Your task to perform on an android device: Show the shopping cart on bestbuy.com. Search for "energizer triple a" on bestbuy.com, select the first entry, add it to the cart, then select checkout. Image 0: 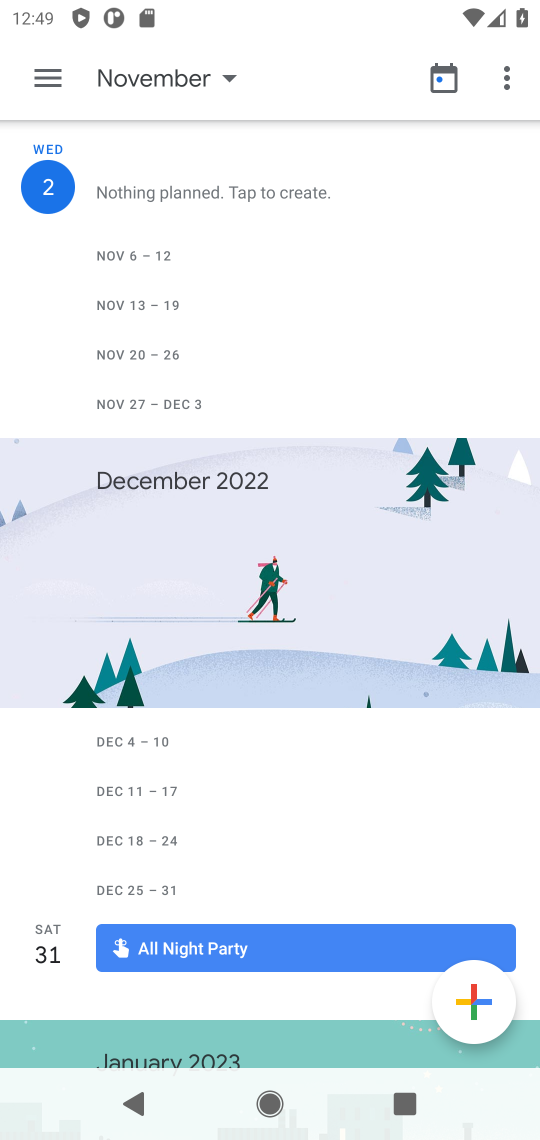
Step 0: press home button
Your task to perform on an android device: Show the shopping cart on bestbuy.com. Search for "energizer triple a" on bestbuy.com, select the first entry, add it to the cart, then select checkout. Image 1: 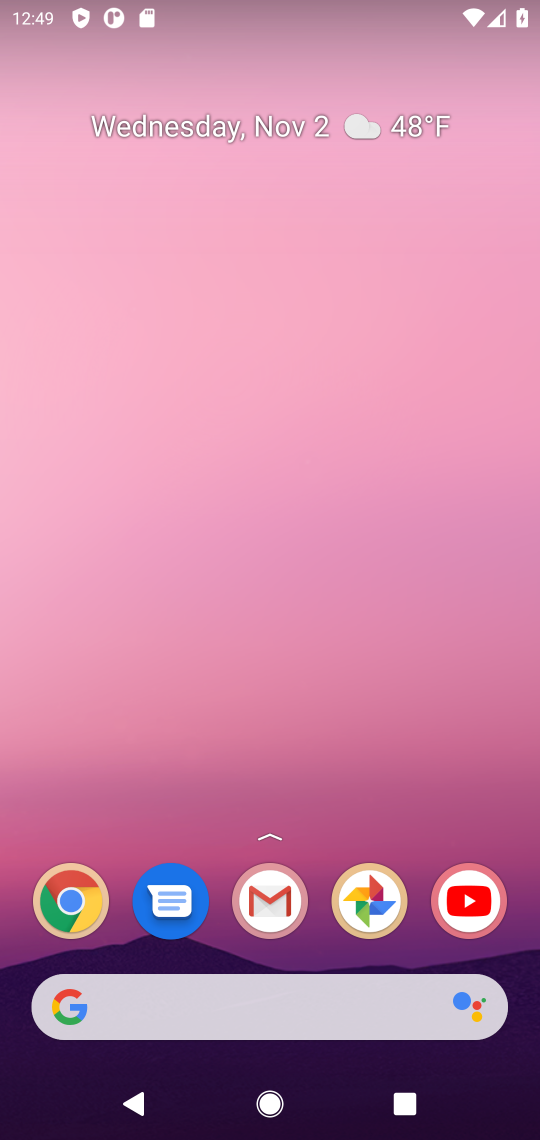
Step 1: drag from (317, 956) to (273, 180)
Your task to perform on an android device: Show the shopping cart on bestbuy.com. Search for "energizer triple a" on bestbuy.com, select the first entry, add it to the cart, then select checkout. Image 2: 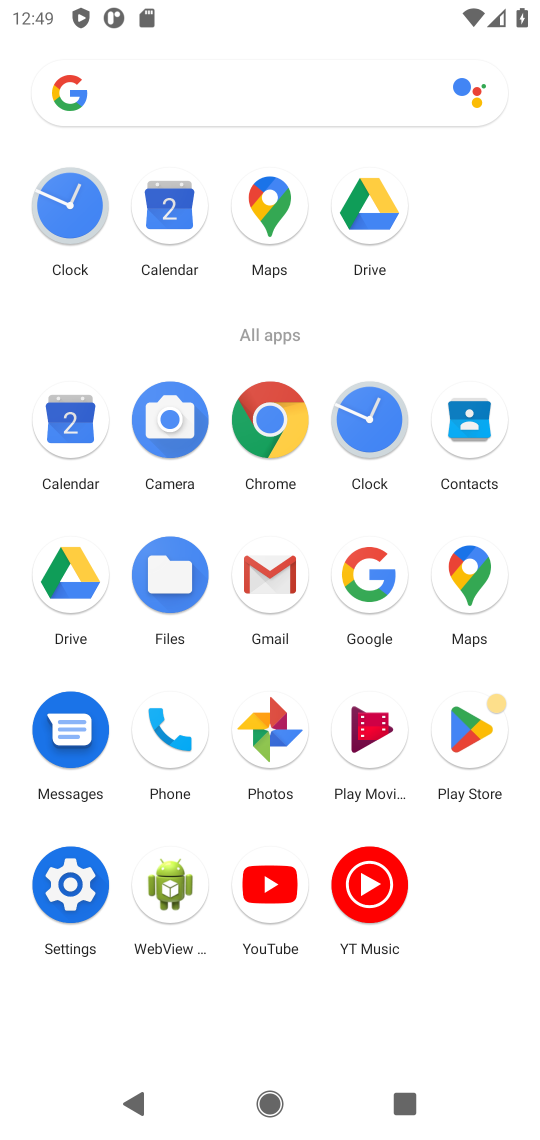
Step 2: click (269, 413)
Your task to perform on an android device: Show the shopping cart on bestbuy.com. Search for "energizer triple a" on bestbuy.com, select the first entry, add it to the cart, then select checkout. Image 3: 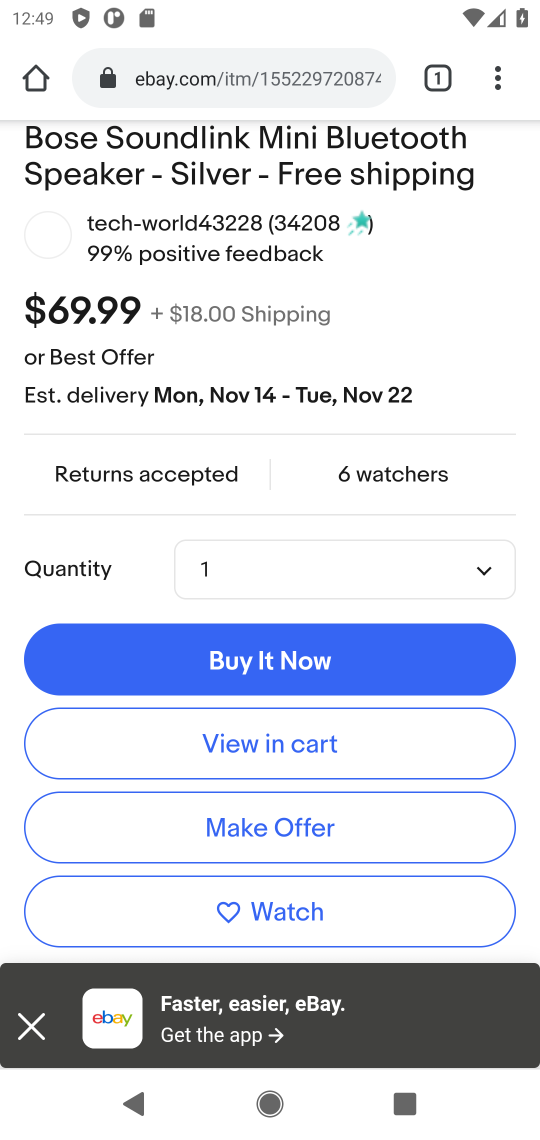
Step 3: click (293, 72)
Your task to perform on an android device: Show the shopping cart on bestbuy.com. Search for "energizer triple a" on bestbuy.com, select the first entry, add it to the cart, then select checkout. Image 4: 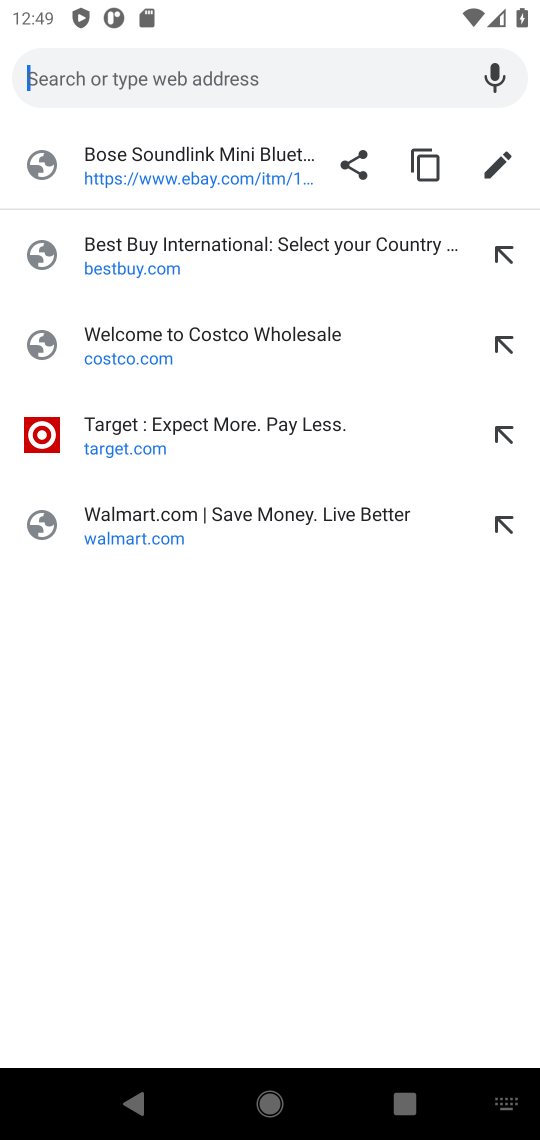
Step 4: type "bestbuy.com"
Your task to perform on an android device: Show the shopping cart on bestbuy.com. Search for "energizer triple a" on bestbuy.com, select the first entry, add it to the cart, then select checkout. Image 5: 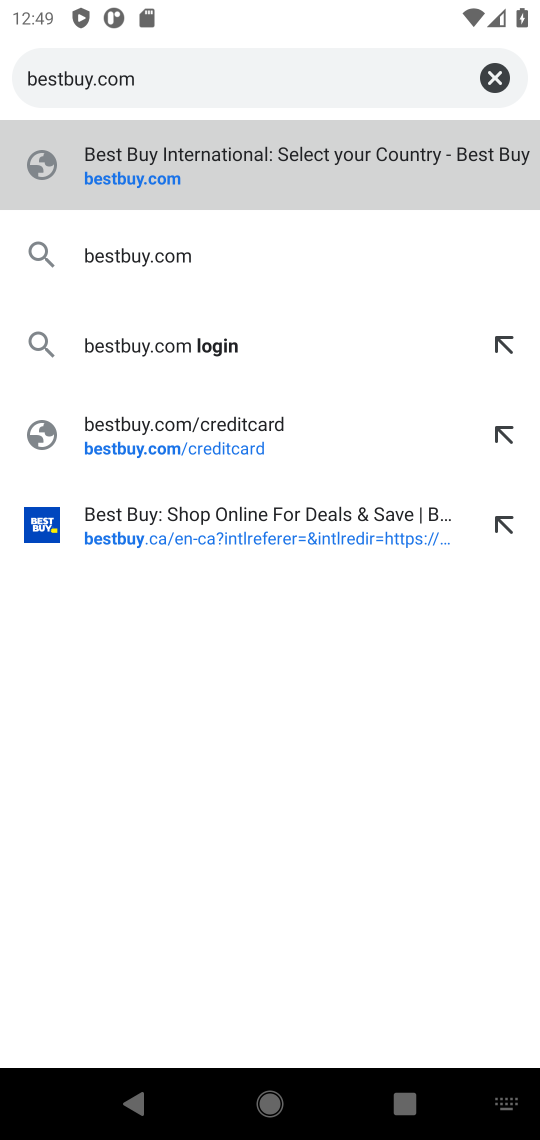
Step 5: press enter
Your task to perform on an android device: Show the shopping cart on bestbuy.com. Search for "energizer triple a" on bestbuy.com, select the first entry, add it to the cart, then select checkout. Image 6: 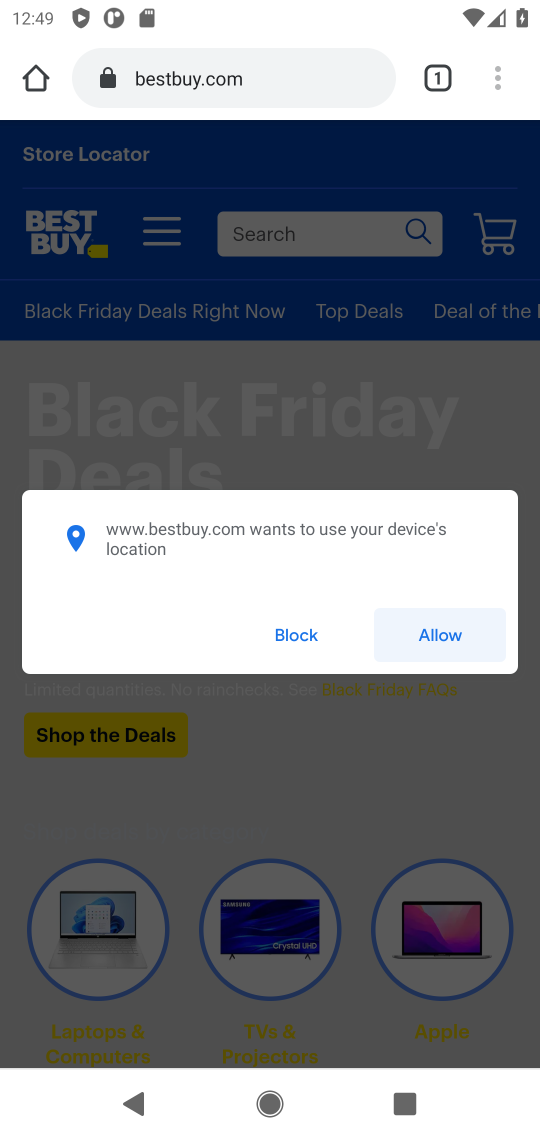
Step 6: click (314, 628)
Your task to perform on an android device: Show the shopping cart on bestbuy.com. Search for "energizer triple a" on bestbuy.com, select the first entry, add it to the cart, then select checkout. Image 7: 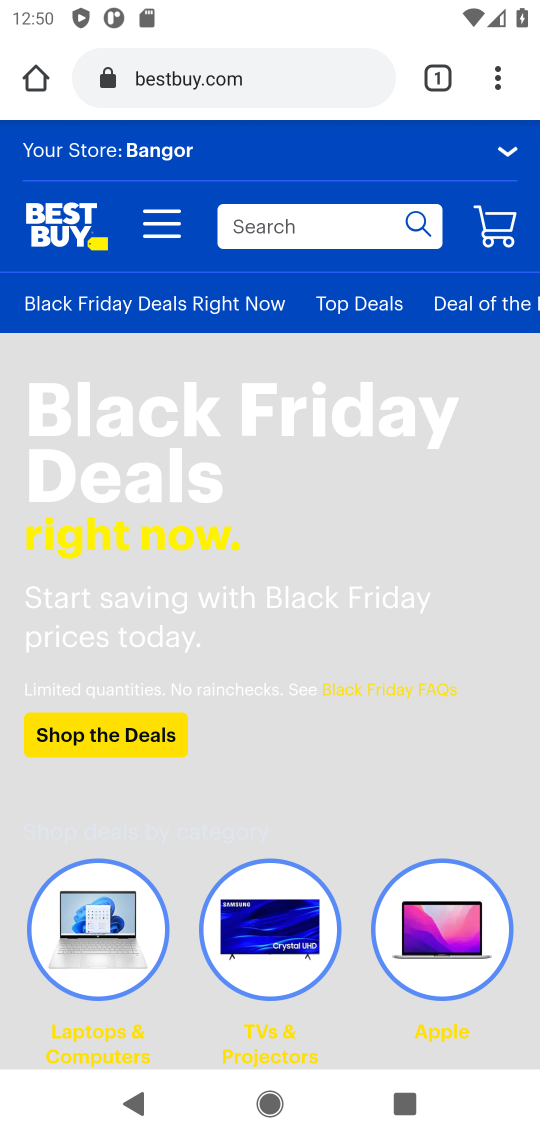
Step 7: click (499, 225)
Your task to perform on an android device: Show the shopping cart on bestbuy.com. Search for "energizer triple a" on bestbuy.com, select the first entry, add it to the cart, then select checkout. Image 8: 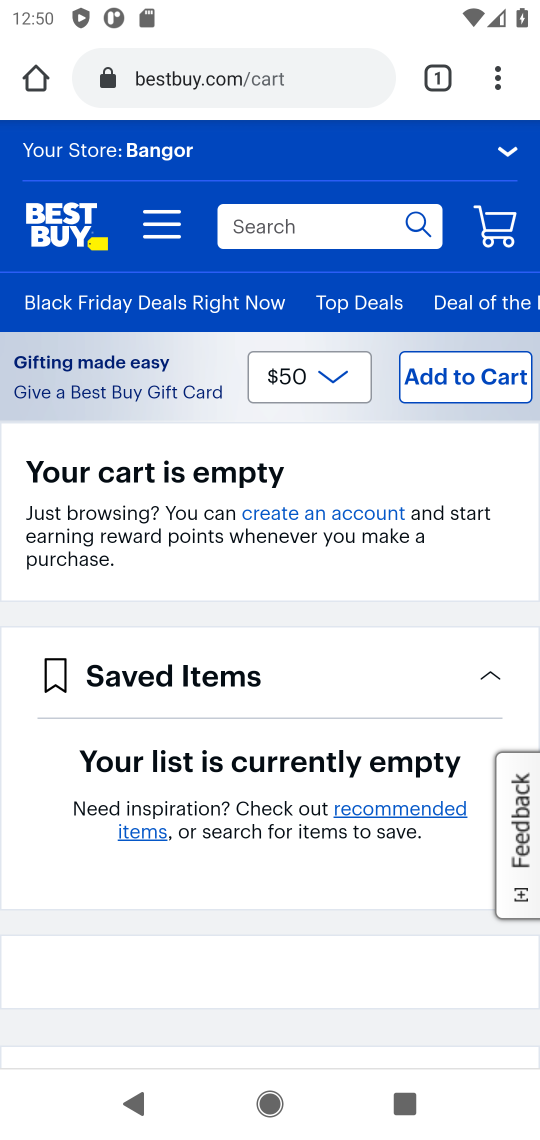
Step 8: click (346, 227)
Your task to perform on an android device: Show the shopping cart on bestbuy.com. Search for "energizer triple a" on bestbuy.com, select the first entry, add it to the cart, then select checkout. Image 9: 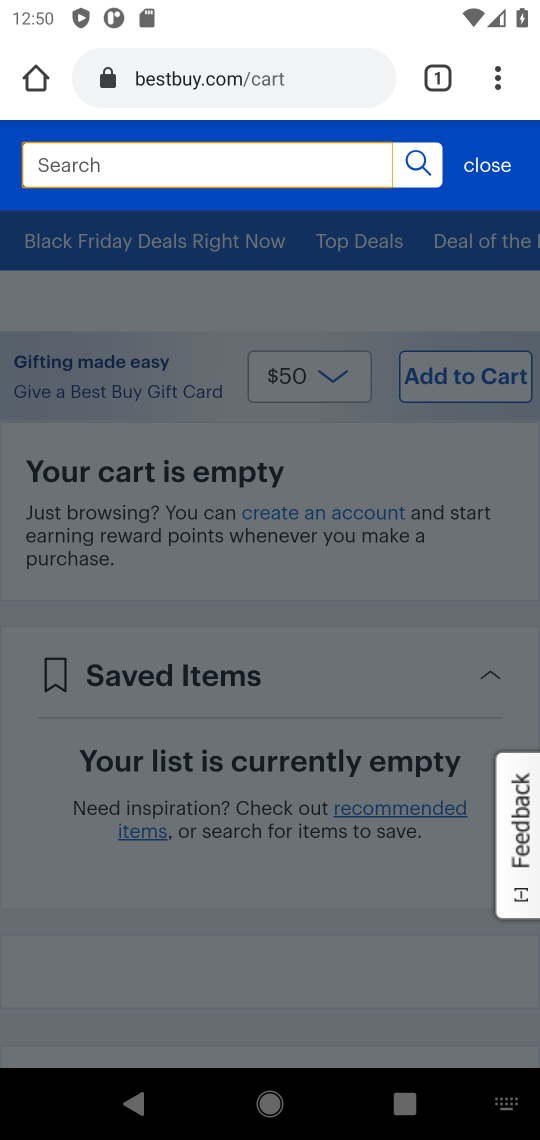
Step 9: type "energizer triple a"
Your task to perform on an android device: Show the shopping cart on bestbuy.com. Search for "energizer triple a" on bestbuy.com, select the first entry, add it to the cart, then select checkout. Image 10: 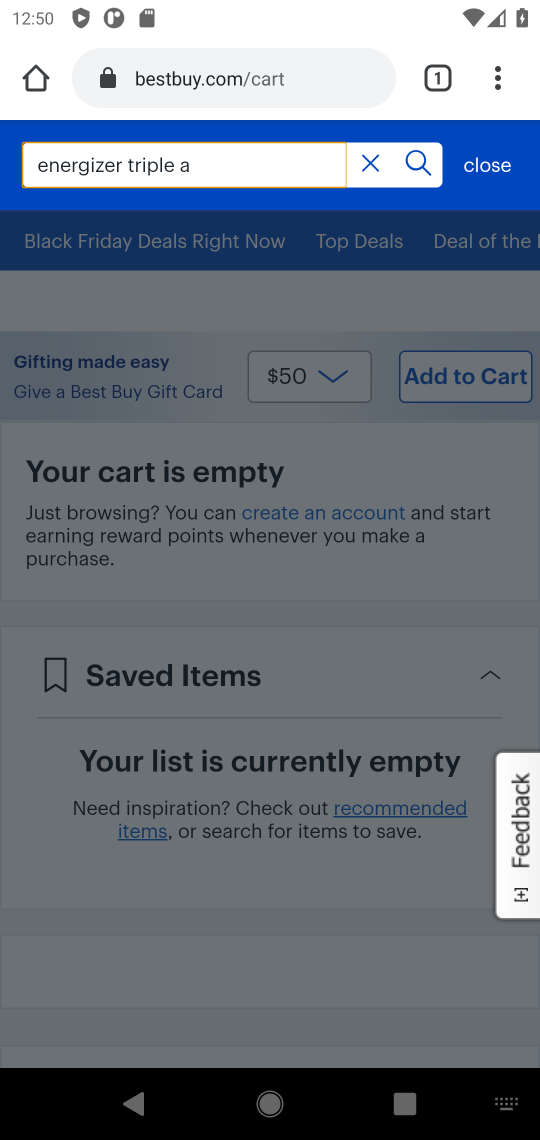
Step 10: press enter
Your task to perform on an android device: Show the shopping cart on bestbuy.com. Search for "energizer triple a" on bestbuy.com, select the first entry, add it to the cart, then select checkout. Image 11: 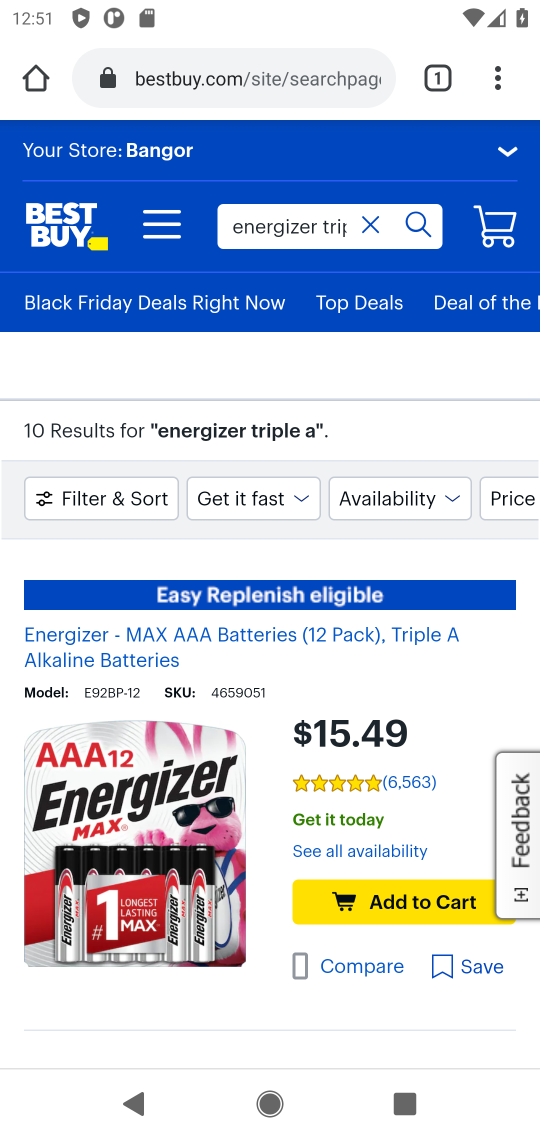
Step 11: drag from (215, 919) to (345, 407)
Your task to perform on an android device: Show the shopping cart on bestbuy.com. Search for "energizer triple a" on bestbuy.com, select the first entry, add it to the cart, then select checkout. Image 12: 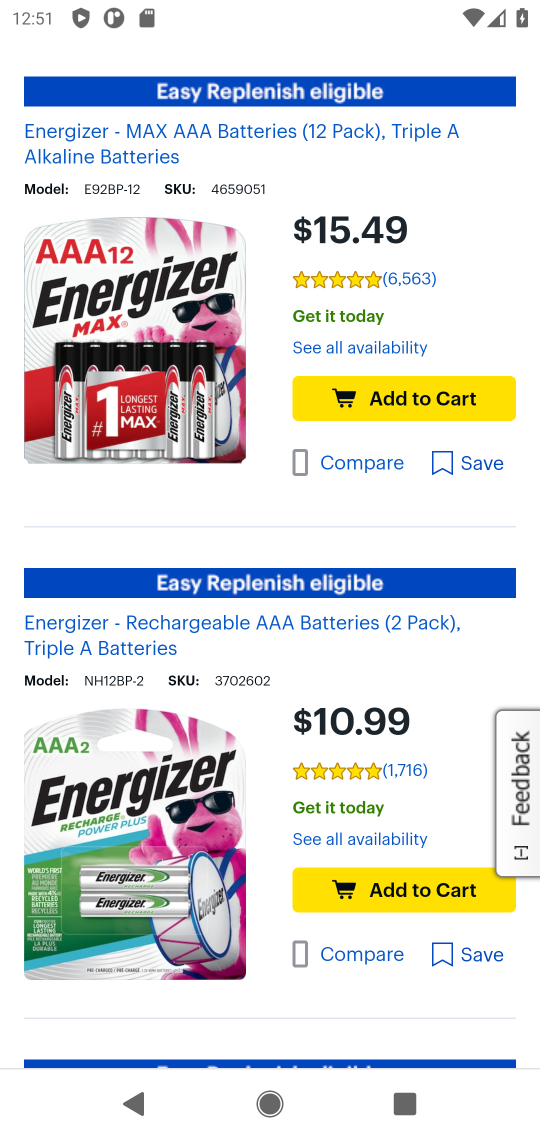
Step 12: click (442, 398)
Your task to perform on an android device: Show the shopping cart on bestbuy.com. Search for "energizer triple a" on bestbuy.com, select the first entry, add it to the cart, then select checkout. Image 13: 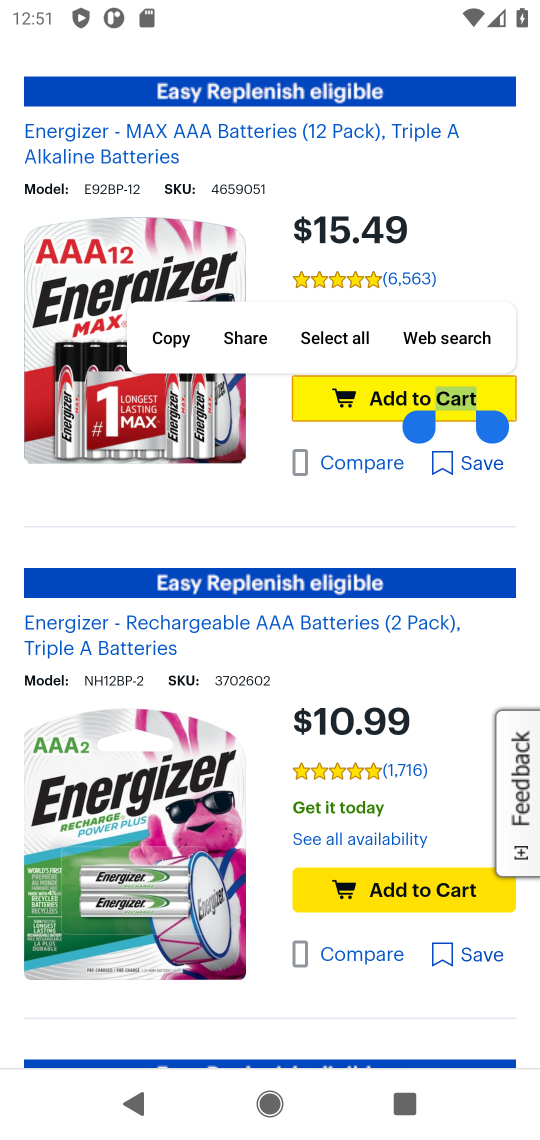
Step 13: click (368, 394)
Your task to perform on an android device: Show the shopping cart on bestbuy.com. Search for "energizer triple a" on bestbuy.com, select the first entry, add it to the cart, then select checkout. Image 14: 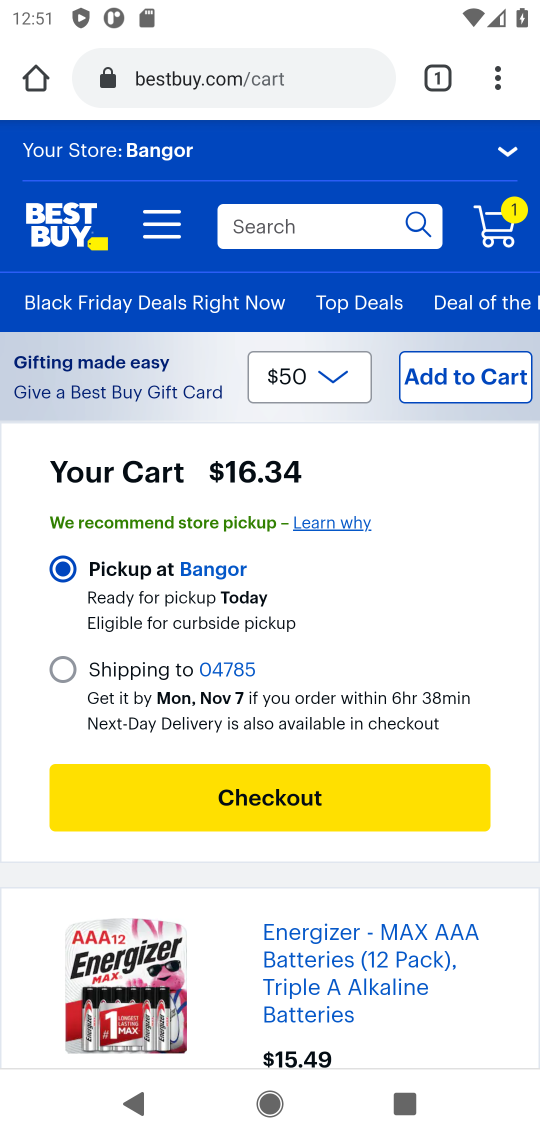
Step 14: click (342, 811)
Your task to perform on an android device: Show the shopping cart on bestbuy.com. Search for "energizer triple a" on bestbuy.com, select the first entry, add it to the cart, then select checkout. Image 15: 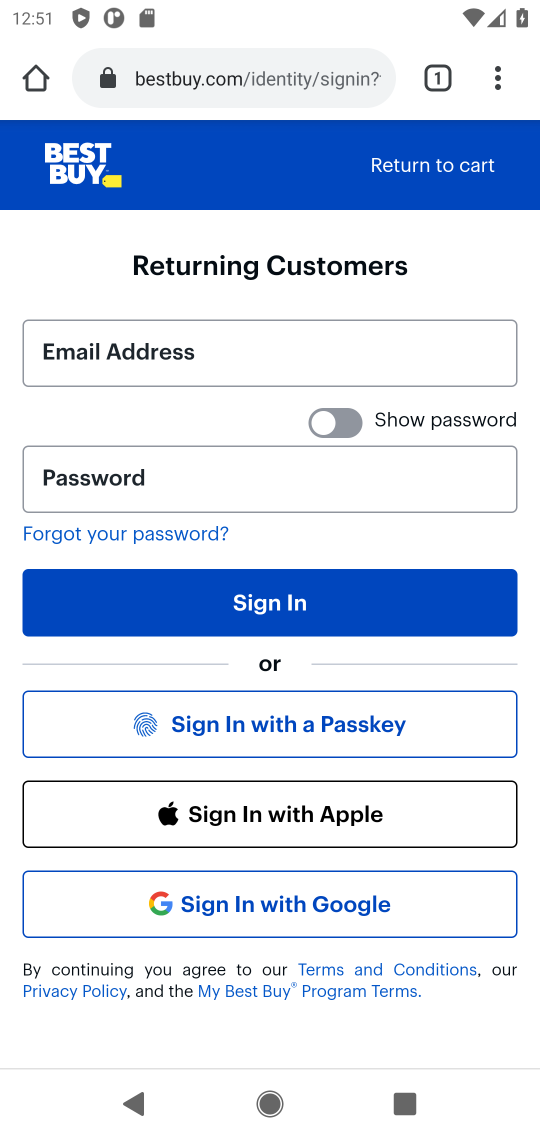
Step 15: task complete